Your task to perform on an android device: Search for Mexican restaurants on Maps Image 0: 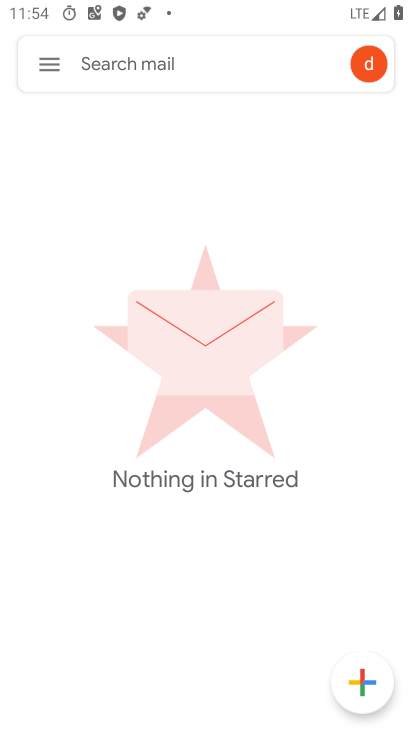
Step 0: press home button
Your task to perform on an android device: Search for Mexican restaurants on Maps Image 1: 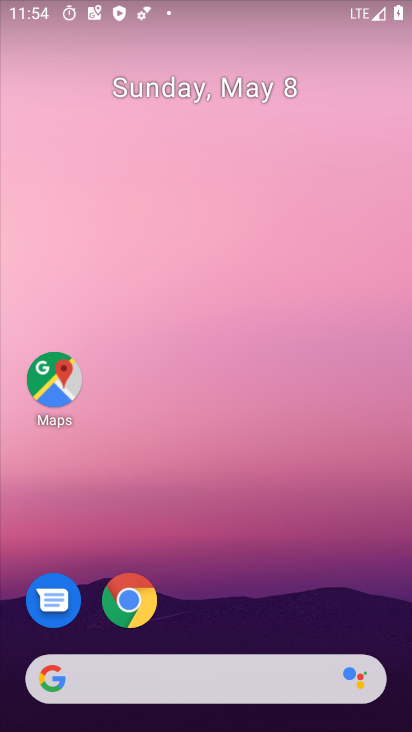
Step 1: click (71, 384)
Your task to perform on an android device: Search for Mexican restaurants on Maps Image 2: 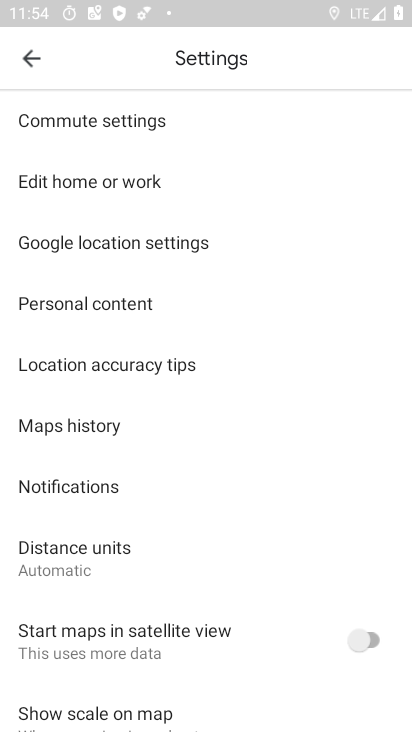
Step 2: click (39, 71)
Your task to perform on an android device: Search for Mexican restaurants on Maps Image 3: 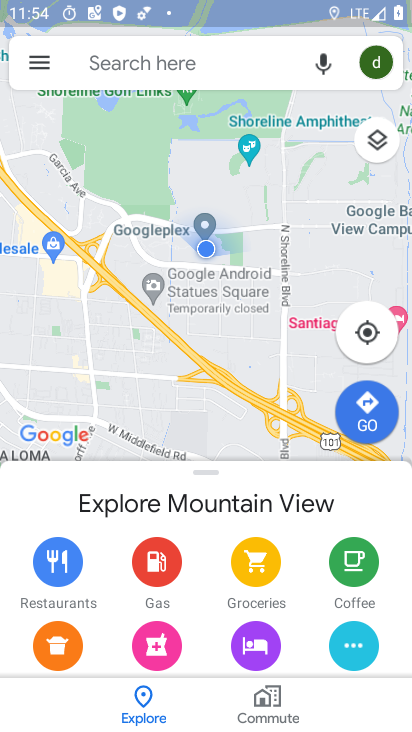
Step 3: click (121, 71)
Your task to perform on an android device: Search for Mexican restaurants on Maps Image 4: 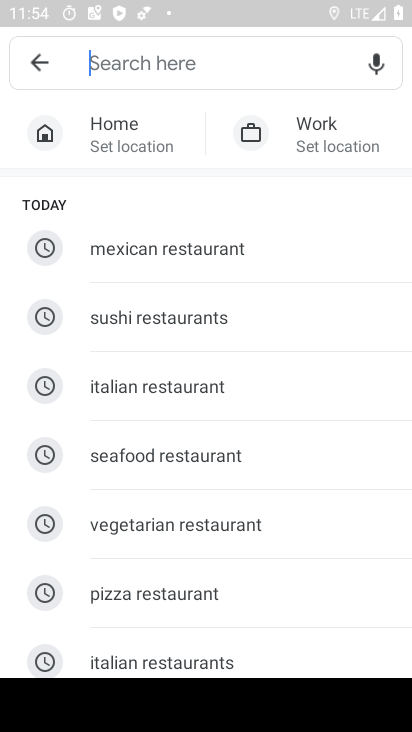
Step 4: click (225, 258)
Your task to perform on an android device: Search for Mexican restaurants on Maps Image 5: 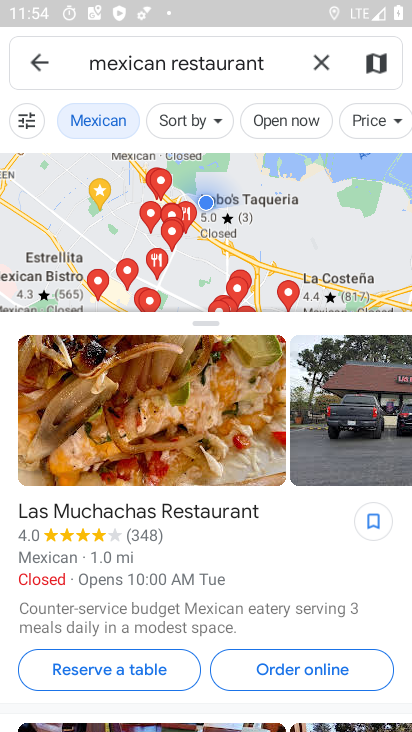
Step 5: task complete